Your task to perform on an android device: Go to display settings Image 0: 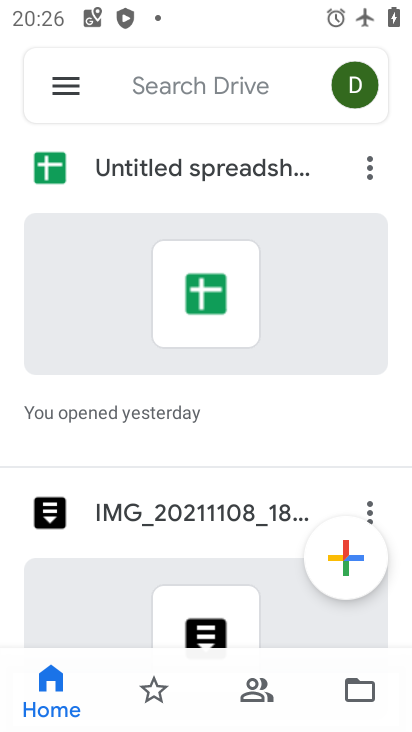
Step 0: press home button
Your task to perform on an android device: Go to display settings Image 1: 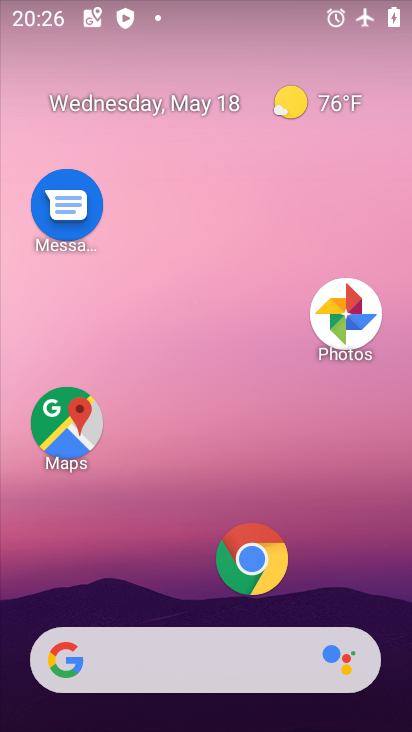
Step 1: drag from (188, 598) to (190, 51)
Your task to perform on an android device: Go to display settings Image 2: 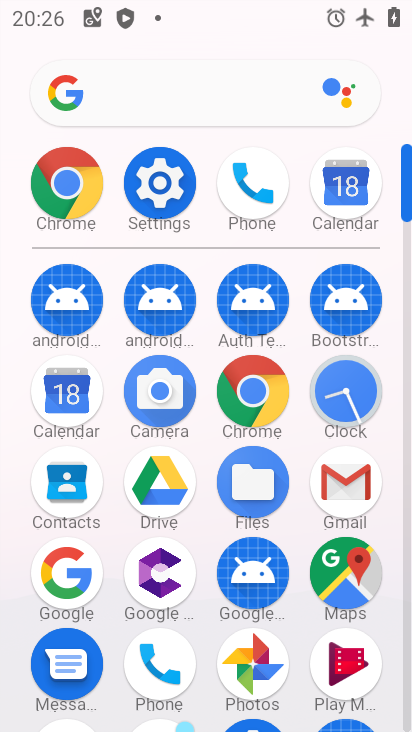
Step 2: click (163, 157)
Your task to perform on an android device: Go to display settings Image 3: 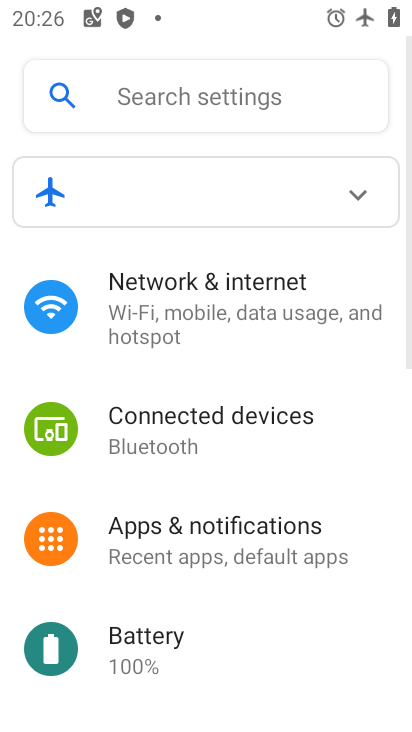
Step 3: drag from (208, 585) to (203, 129)
Your task to perform on an android device: Go to display settings Image 4: 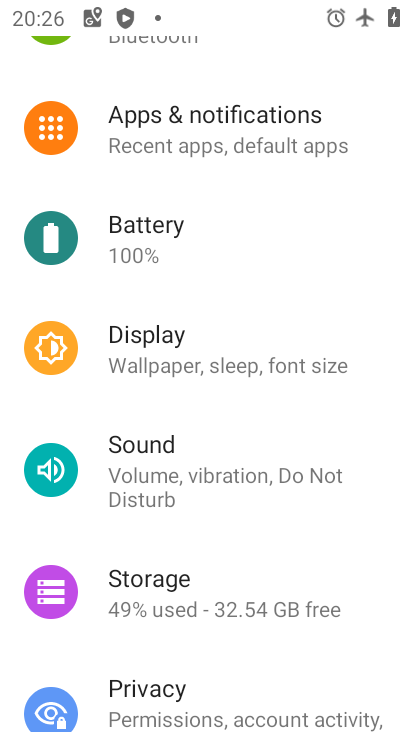
Step 4: click (221, 361)
Your task to perform on an android device: Go to display settings Image 5: 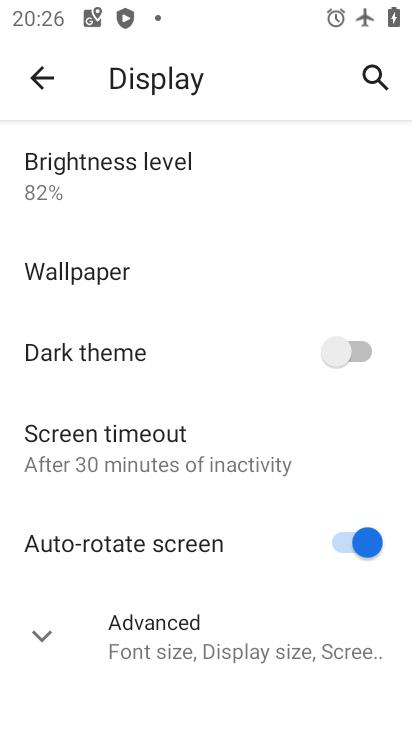
Step 5: task complete